Your task to perform on an android device: Show me recent news Image 0: 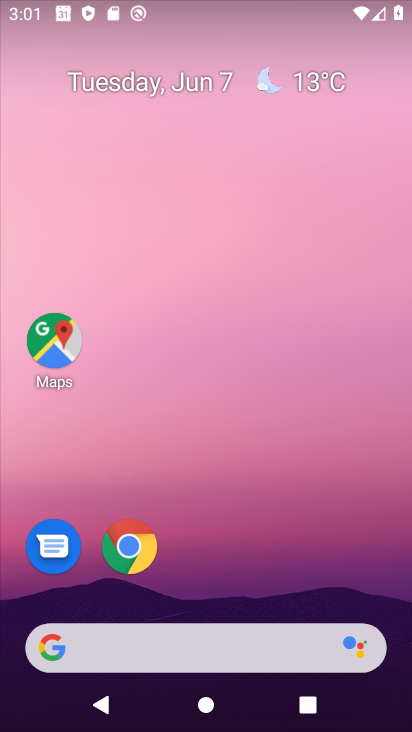
Step 0: drag from (201, 467) to (215, 58)
Your task to perform on an android device: Show me recent news Image 1: 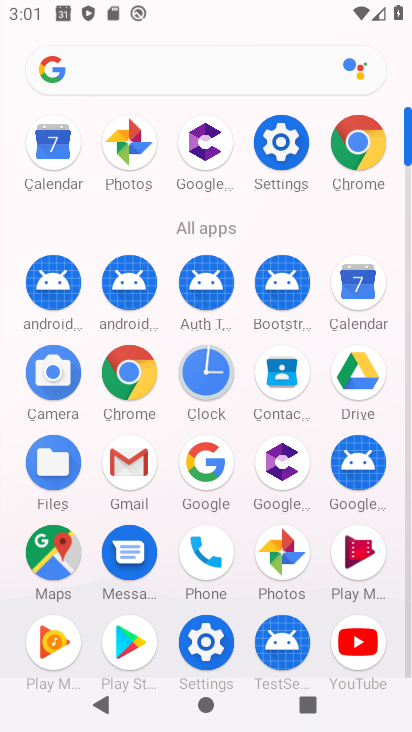
Step 1: click (127, 372)
Your task to perform on an android device: Show me recent news Image 2: 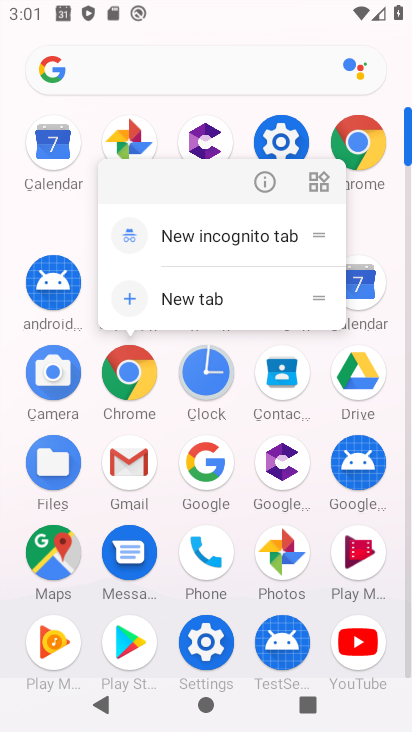
Step 2: click (129, 370)
Your task to perform on an android device: Show me recent news Image 3: 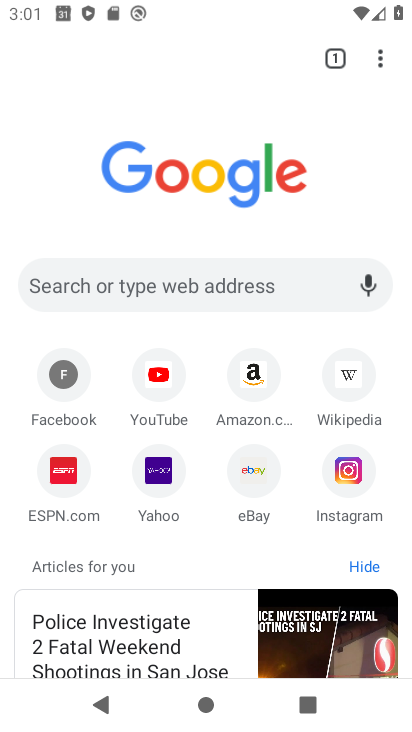
Step 3: click (112, 282)
Your task to perform on an android device: Show me recent news Image 4: 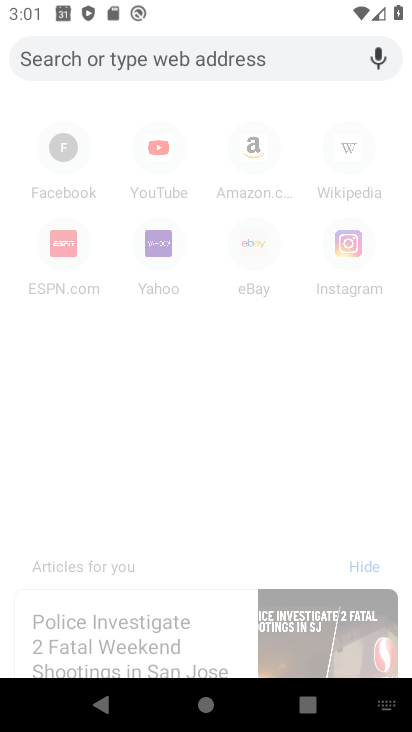
Step 4: type "recent news"
Your task to perform on an android device: Show me recent news Image 5: 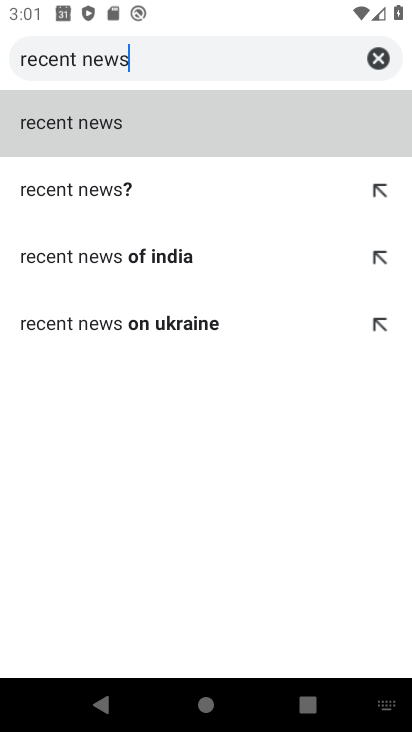
Step 5: click (290, 130)
Your task to perform on an android device: Show me recent news Image 6: 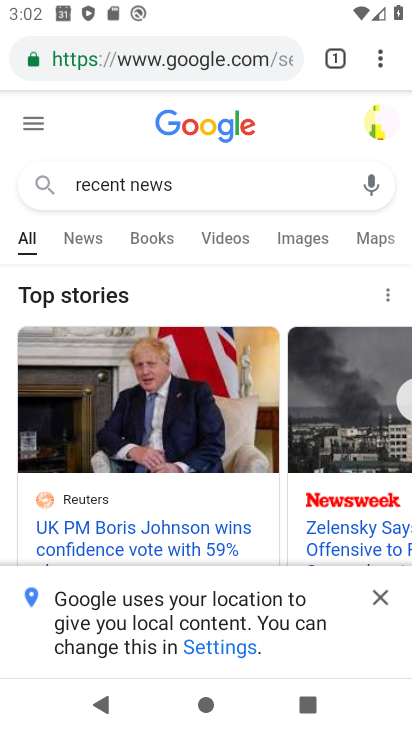
Step 6: task complete